Your task to perform on an android device: turn pop-ups on in chrome Image 0: 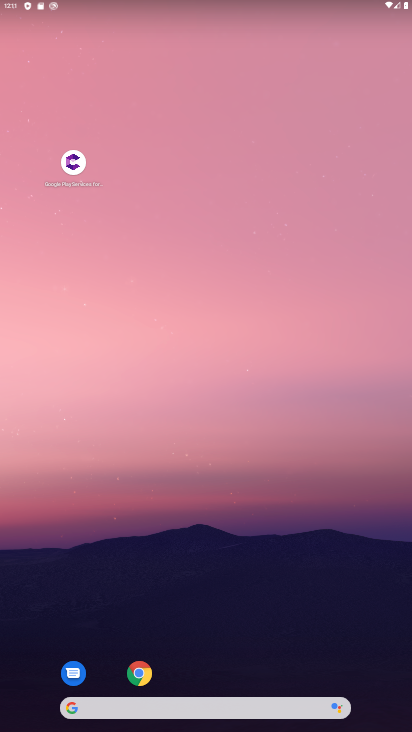
Step 0: drag from (171, 709) to (90, 2)
Your task to perform on an android device: turn pop-ups on in chrome Image 1: 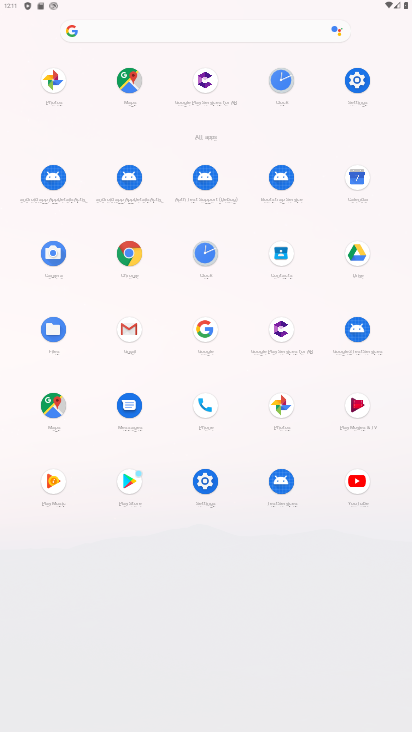
Step 1: click (144, 265)
Your task to perform on an android device: turn pop-ups on in chrome Image 2: 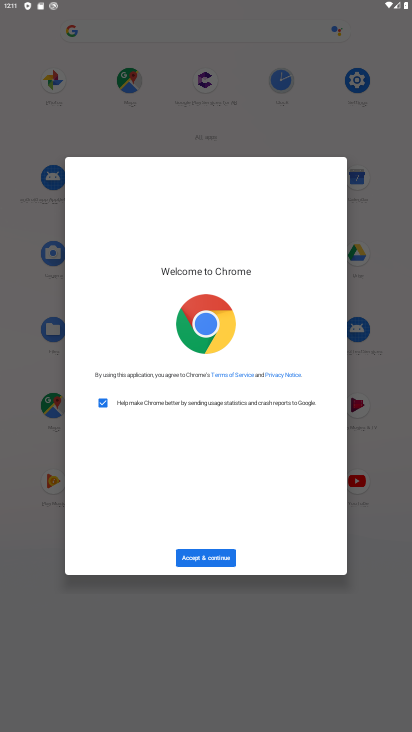
Step 2: click (223, 557)
Your task to perform on an android device: turn pop-ups on in chrome Image 3: 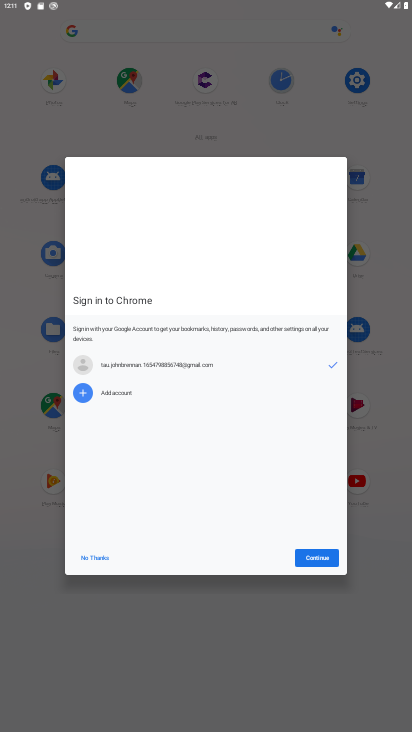
Step 3: click (305, 561)
Your task to perform on an android device: turn pop-ups on in chrome Image 4: 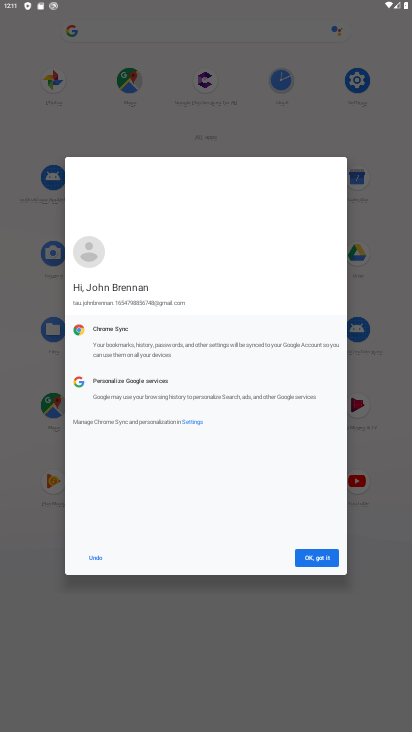
Step 4: click (94, 556)
Your task to perform on an android device: turn pop-ups on in chrome Image 5: 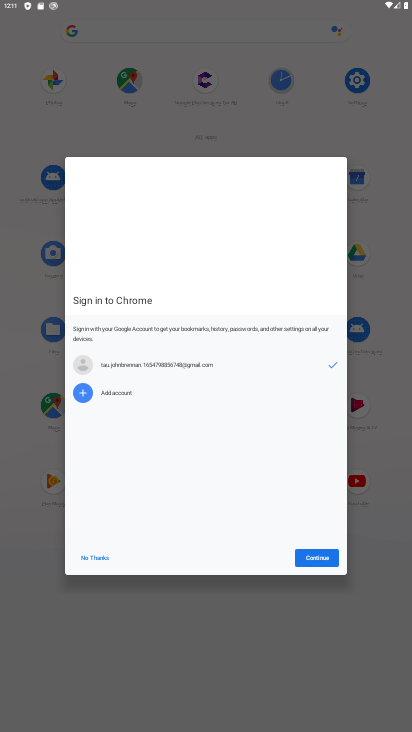
Step 5: click (94, 556)
Your task to perform on an android device: turn pop-ups on in chrome Image 6: 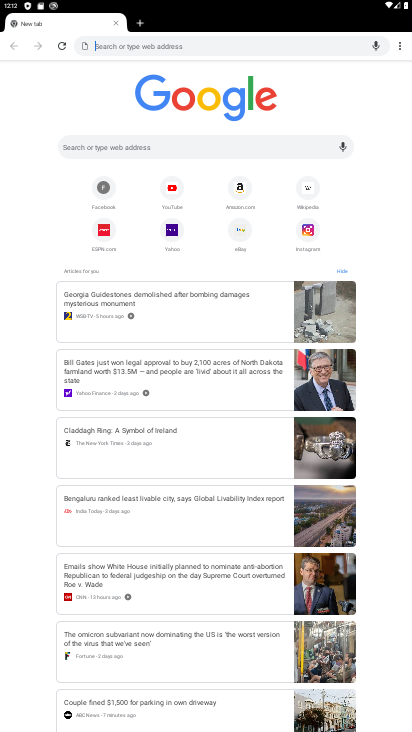
Step 6: click (406, 52)
Your task to perform on an android device: turn pop-ups on in chrome Image 7: 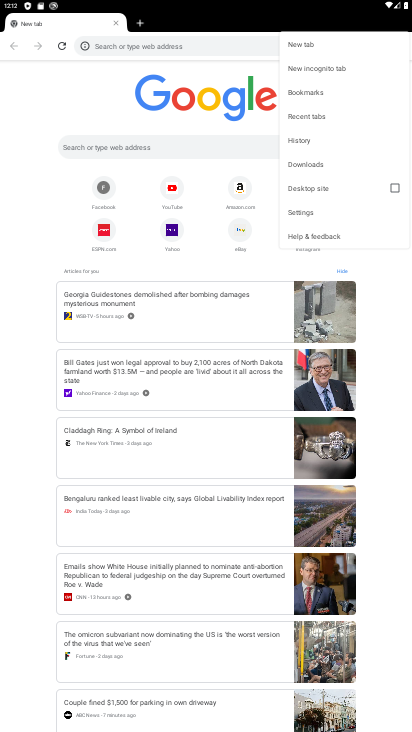
Step 7: click (319, 213)
Your task to perform on an android device: turn pop-ups on in chrome Image 8: 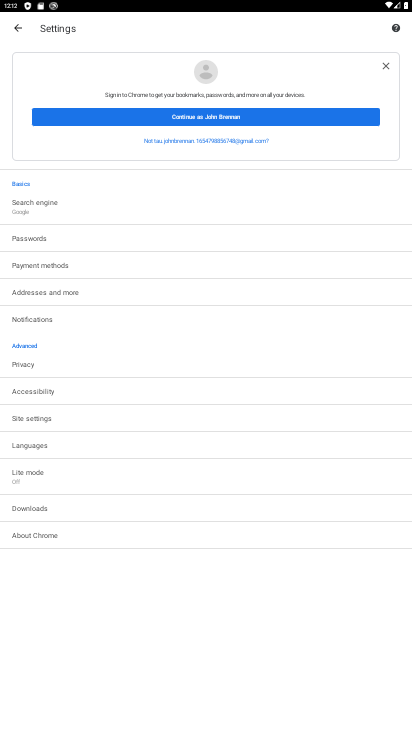
Step 8: click (55, 418)
Your task to perform on an android device: turn pop-ups on in chrome Image 9: 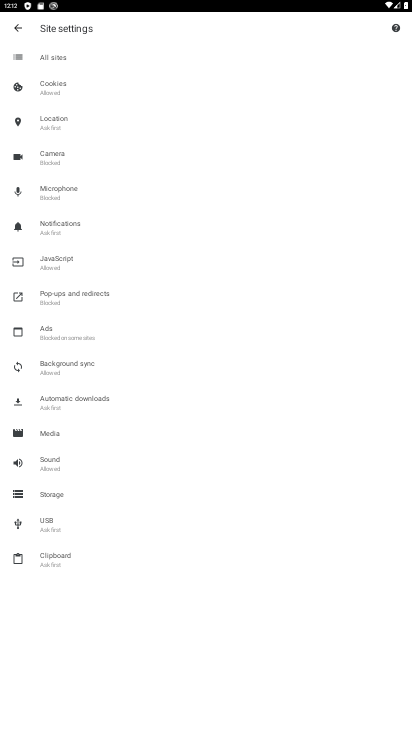
Step 9: click (50, 300)
Your task to perform on an android device: turn pop-ups on in chrome Image 10: 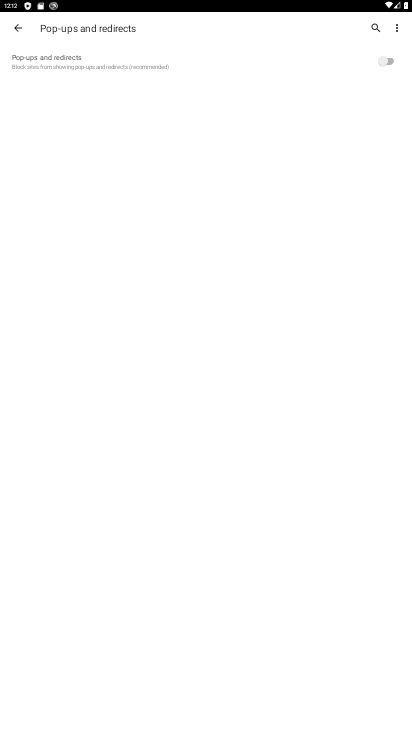
Step 10: click (392, 57)
Your task to perform on an android device: turn pop-ups on in chrome Image 11: 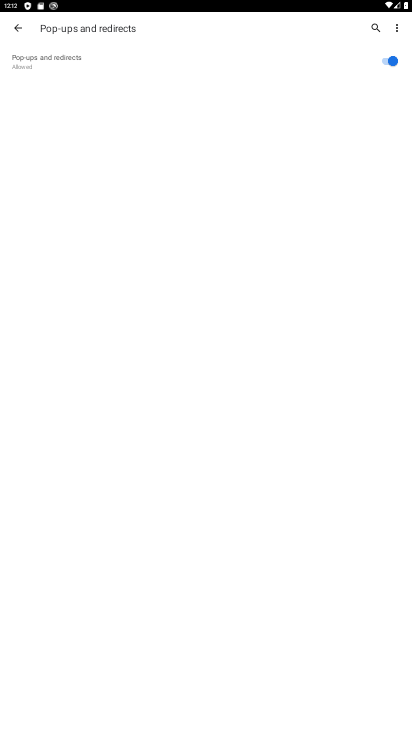
Step 11: task complete